Your task to perform on an android device: open app "Roku - Official Remote Control" (install if not already installed) Image 0: 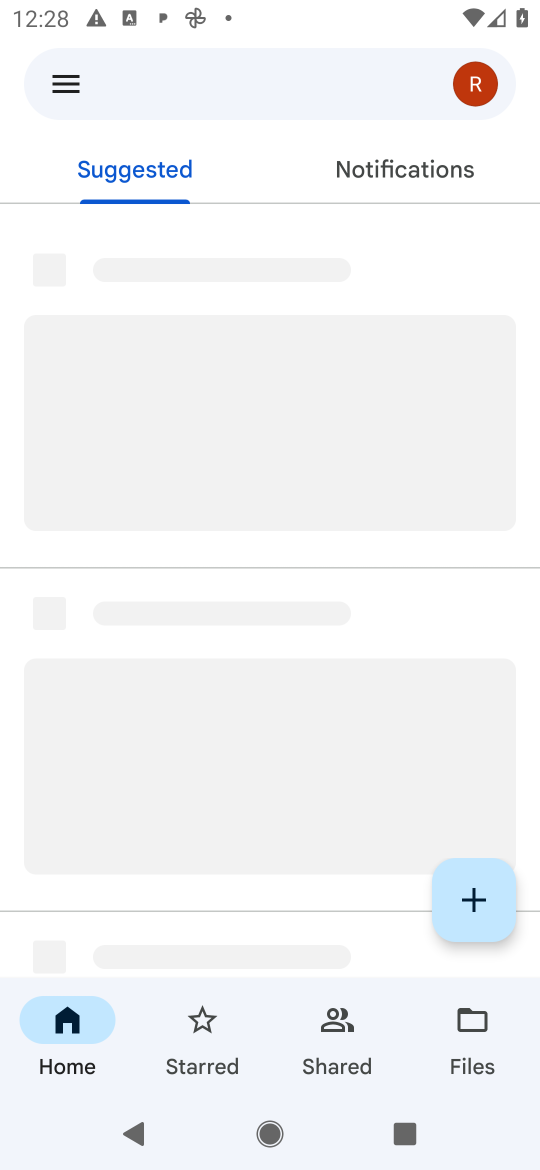
Step 0: press home button
Your task to perform on an android device: open app "Roku - Official Remote Control" (install if not already installed) Image 1: 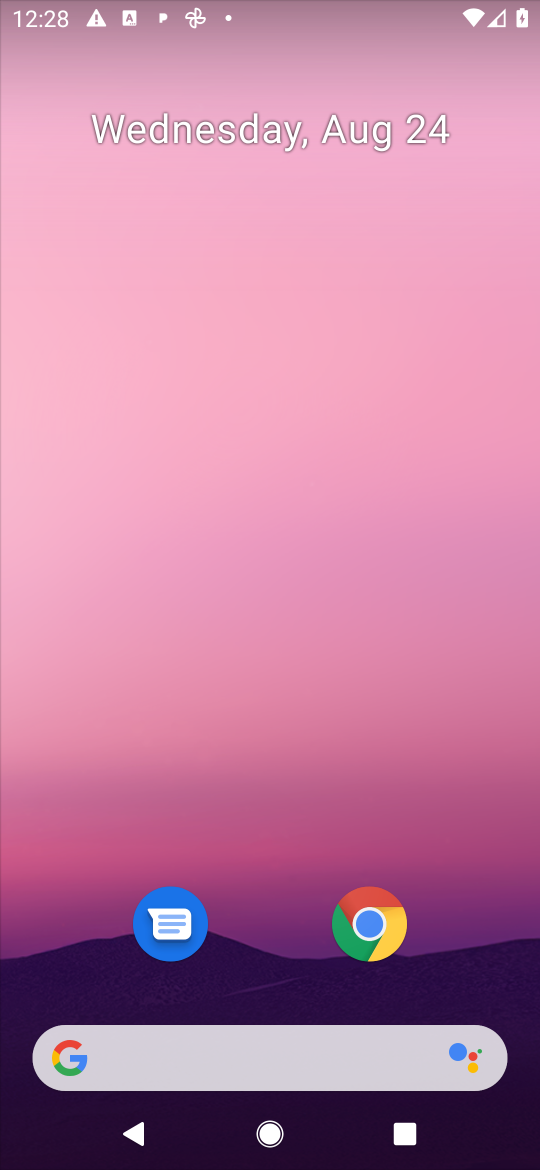
Step 1: drag from (467, 876) to (430, 114)
Your task to perform on an android device: open app "Roku - Official Remote Control" (install if not already installed) Image 2: 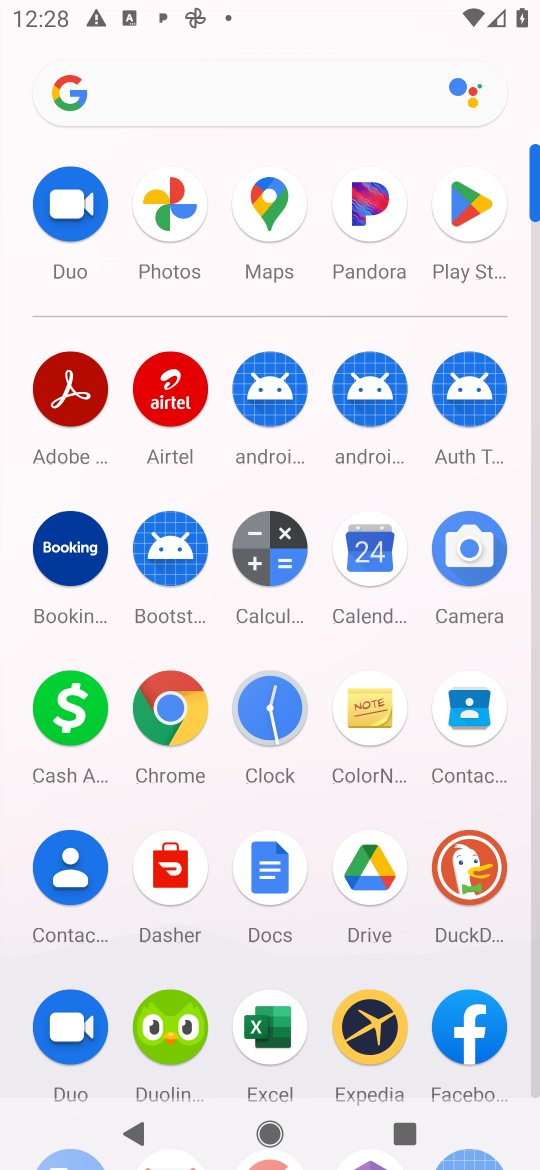
Step 2: click (464, 209)
Your task to perform on an android device: open app "Roku - Official Remote Control" (install if not already installed) Image 3: 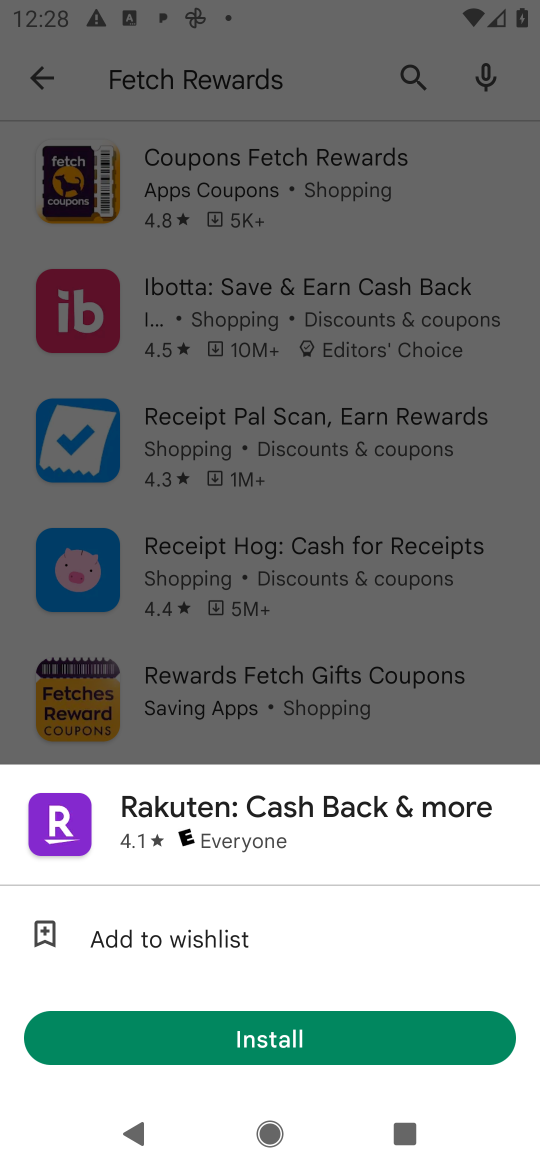
Step 3: press back button
Your task to perform on an android device: open app "Roku - Official Remote Control" (install if not already installed) Image 4: 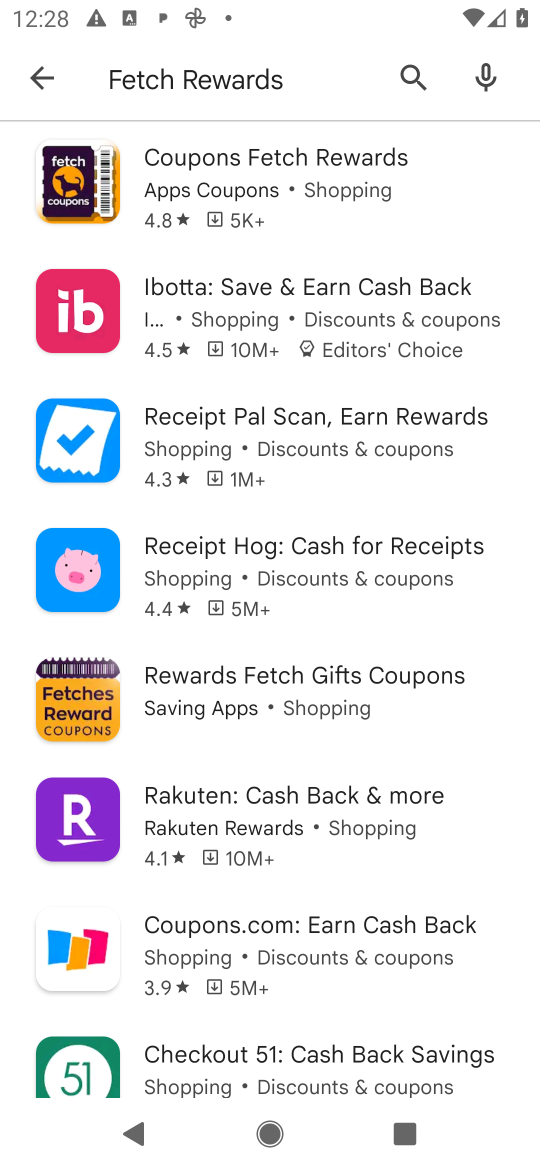
Step 4: press back button
Your task to perform on an android device: open app "Roku - Official Remote Control" (install if not already installed) Image 5: 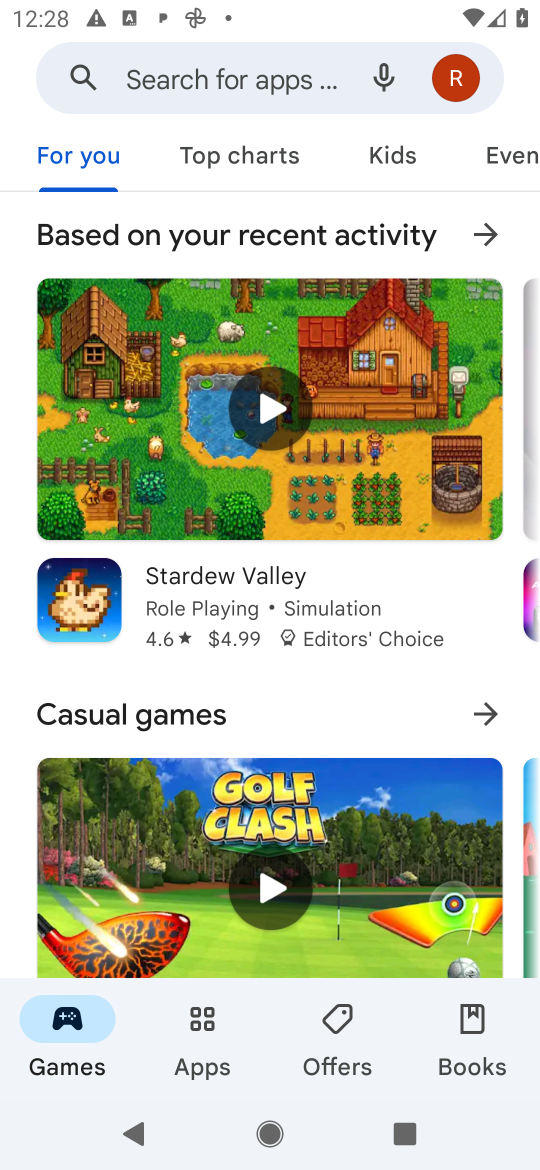
Step 5: click (272, 76)
Your task to perform on an android device: open app "Roku - Official Remote Control" (install if not already installed) Image 6: 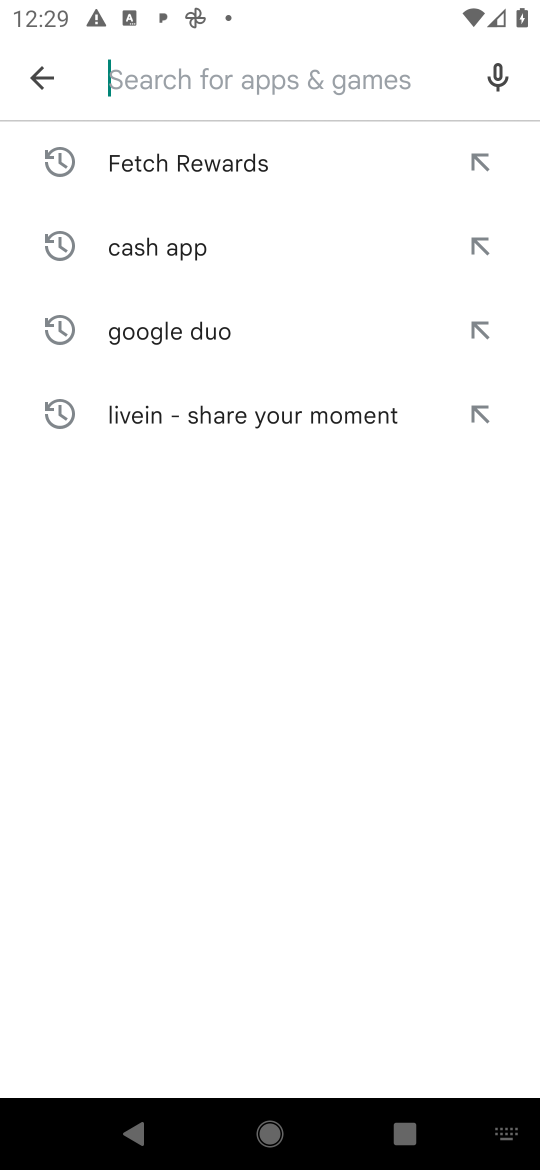
Step 6: type "Roku - Official Remote Control"
Your task to perform on an android device: open app "Roku - Official Remote Control" (install if not already installed) Image 7: 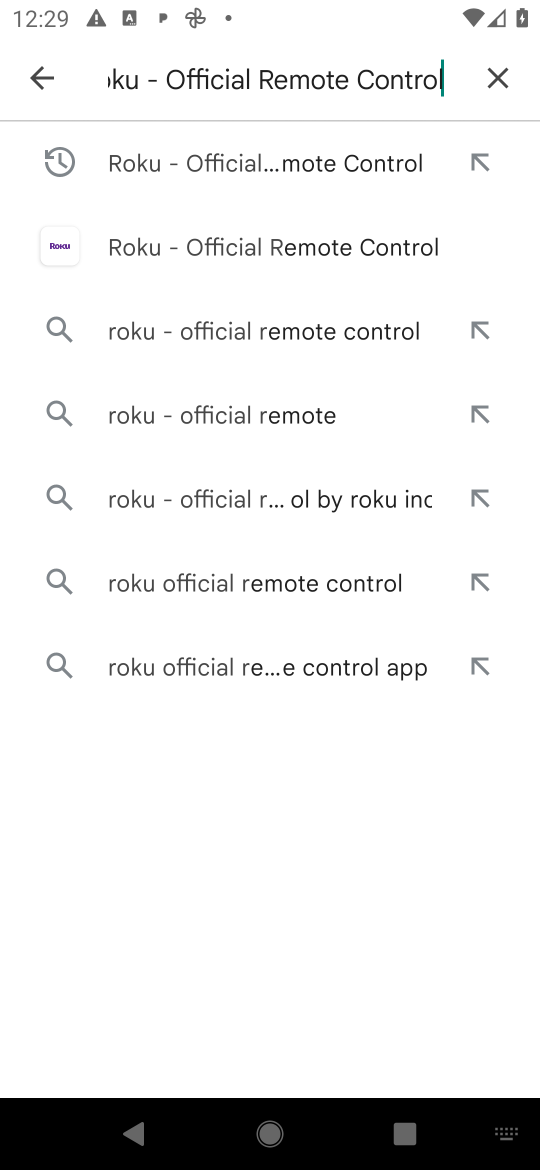
Step 7: press enter
Your task to perform on an android device: open app "Roku - Official Remote Control" (install if not already installed) Image 8: 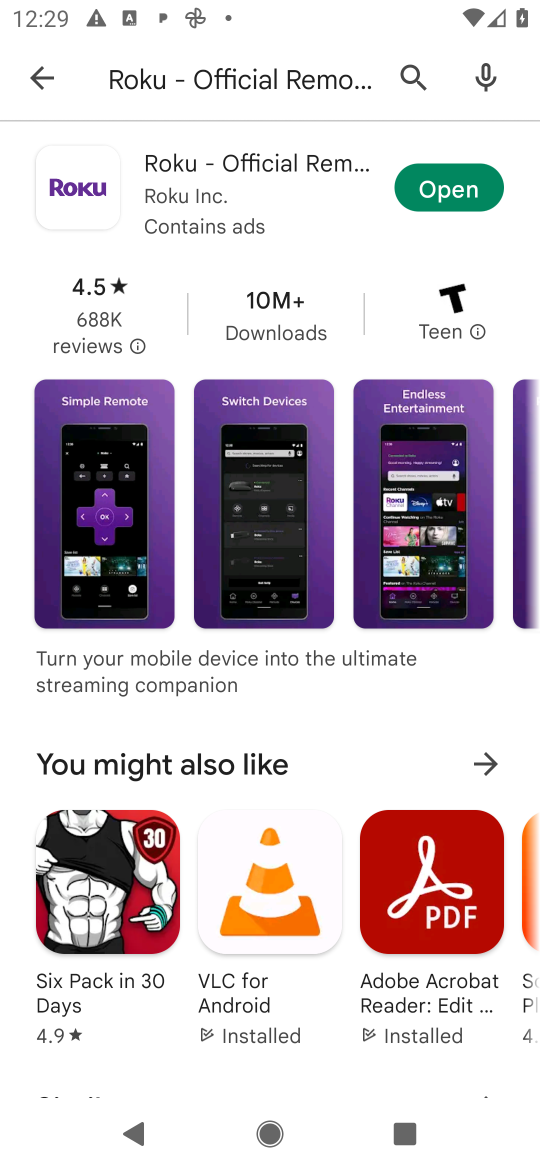
Step 8: click (464, 193)
Your task to perform on an android device: open app "Roku - Official Remote Control" (install if not already installed) Image 9: 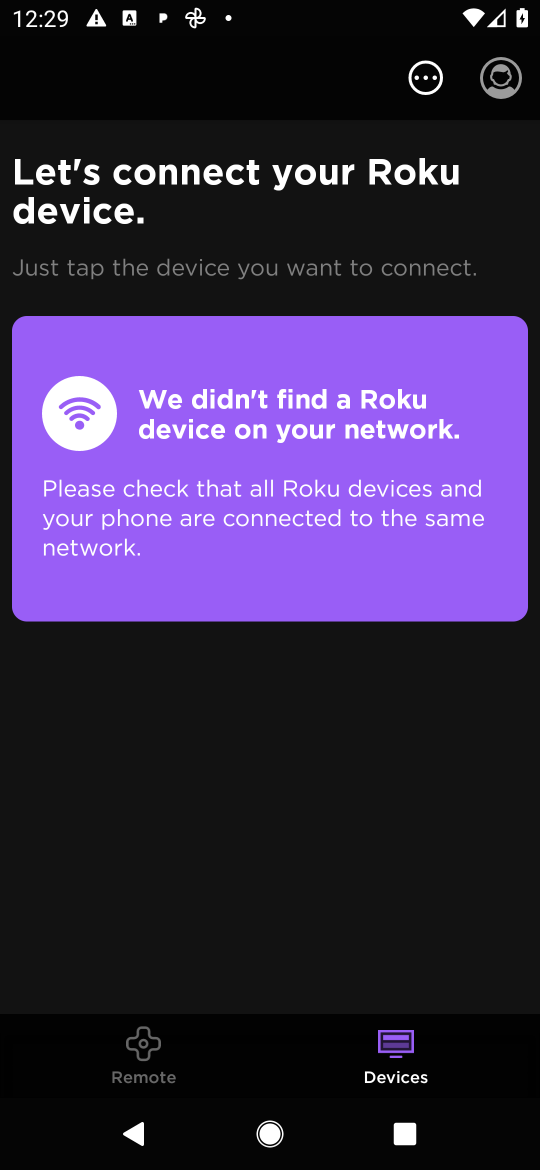
Step 9: task complete